Your task to perform on an android device: Go to Google Image 0: 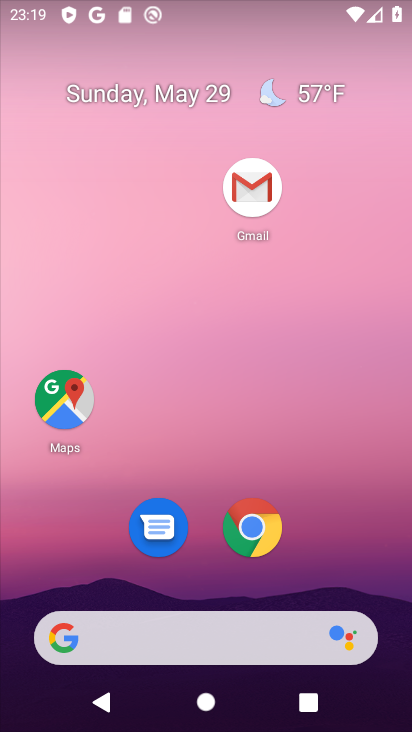
Step 0: drag from (344, 512) to (314, 102)
Your task to perform on an android device: Go to Google Image 1: 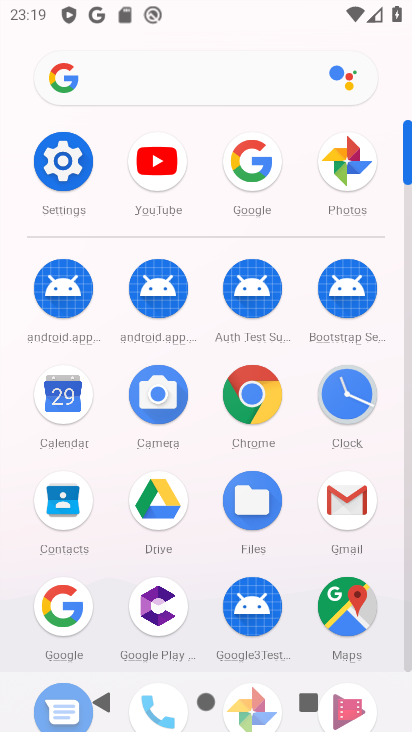
Step 1: click (245, 155)
Your task to perform on an android device: Go to Google Image 2: 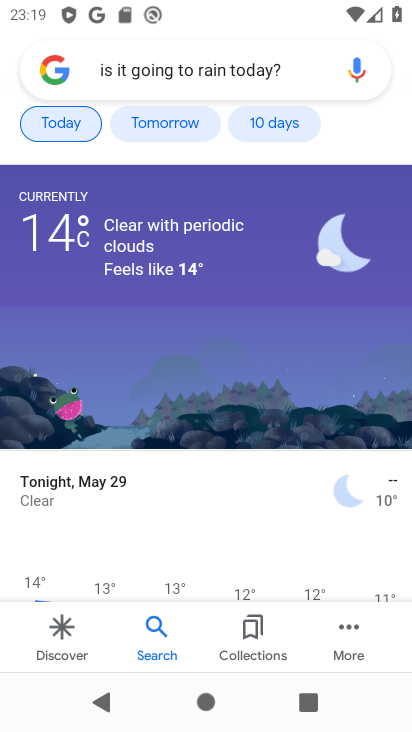
Step 2: task complete